Your task to perform on an android device: Open Maps and search for coffee Image 0: 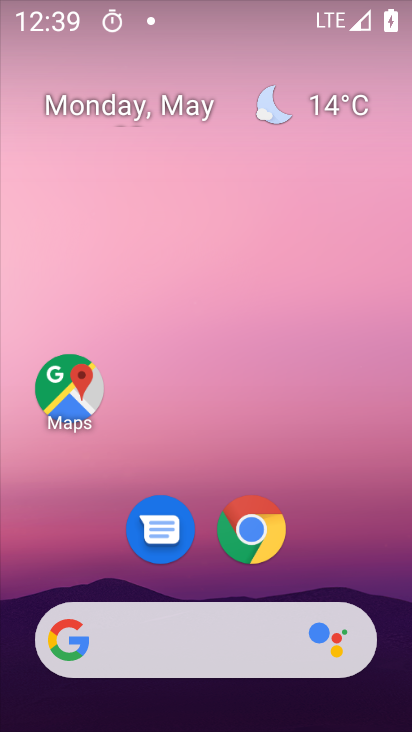
Step 0: drag from (343, 571) to (358, 248)
Your task to perform on an android device: Open Maps and search for coffee Image 1: 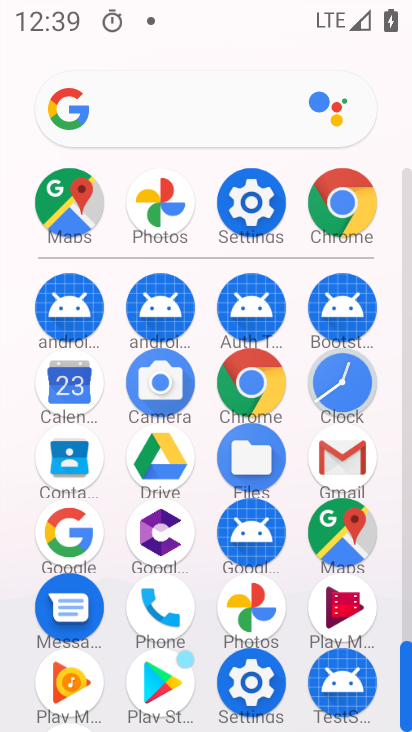
Step 1: click (348, 554)
Your task to perform on an android device: Open Maps and search for coffee Image 2: 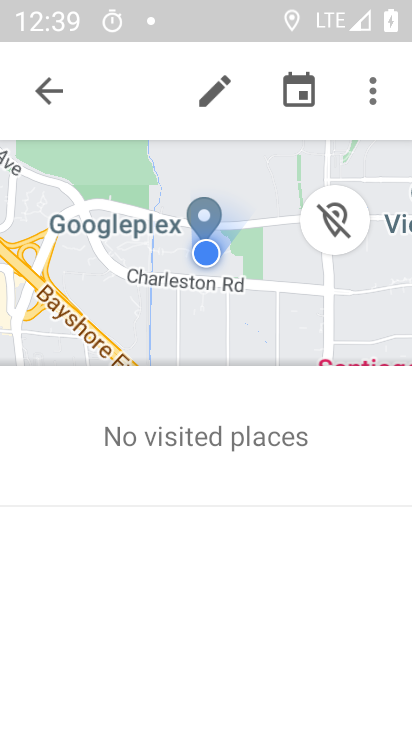
Step 2: click (48, 99)
Your task to perform on an android device: Open Maps and search for coffee Image 3: 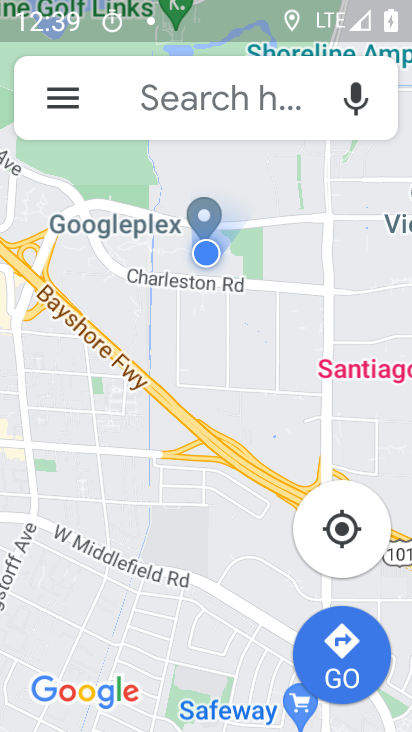
Step 3: click (169, 93)
Your task to perform on an android device: Open Maps and search for coffee Image 4: 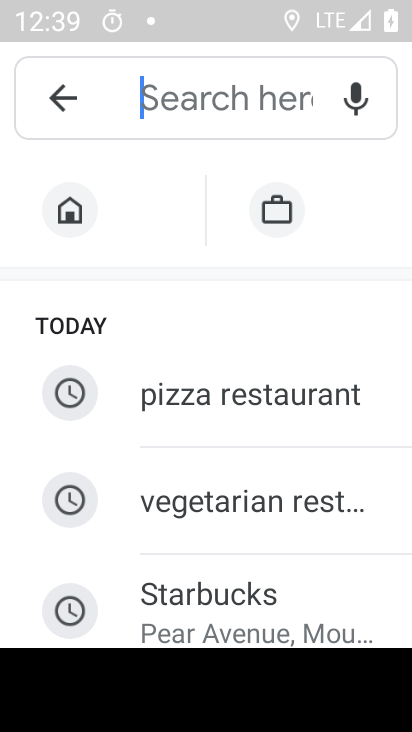
Step 4: drag from (298, 542) to (301, 378)
Your task to perform on an android device: Open Maps and search for coffee Image 5: 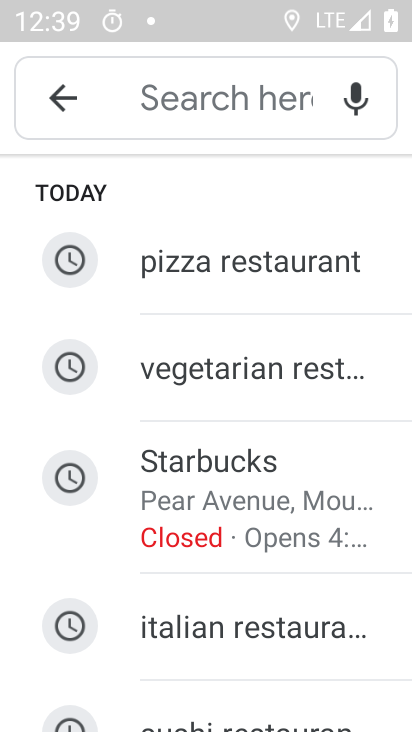
Step 5: drag from (297, 626) to (318, 370)
Your task to perform on an android device: Open Maps and search for coffee Image 6: 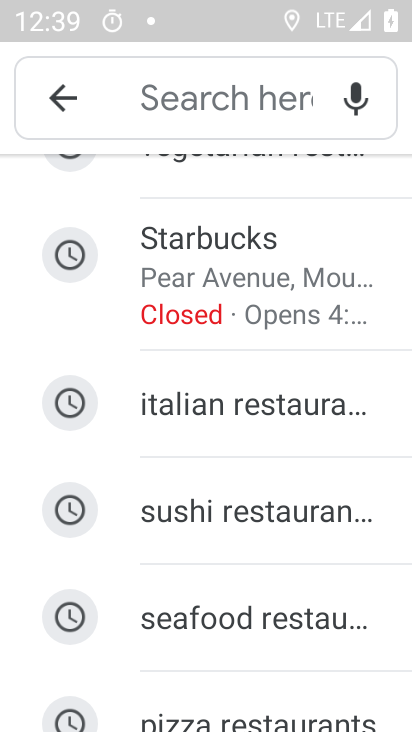
Step 6: drag from (285, 642) to (285, 421)
Your task to perform on an android device: Open Maps and search for coffee Image 7: 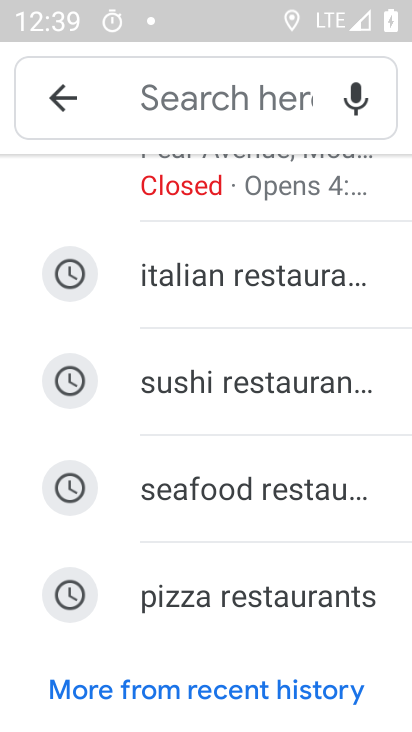
Step 7: drag from (284, 642) to (293, 380)
Your task to perform on an android device: Open Maps and search for coffee Image 8: 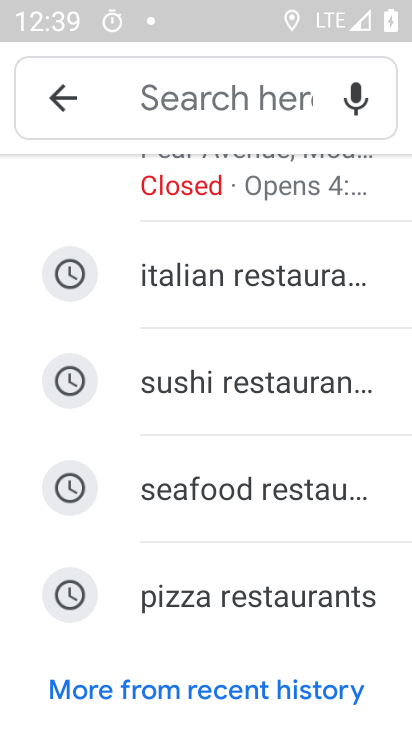
Step 8: click (197, 108)
Your task to perform on an android device: Open Maps and search for coffee Image 9: 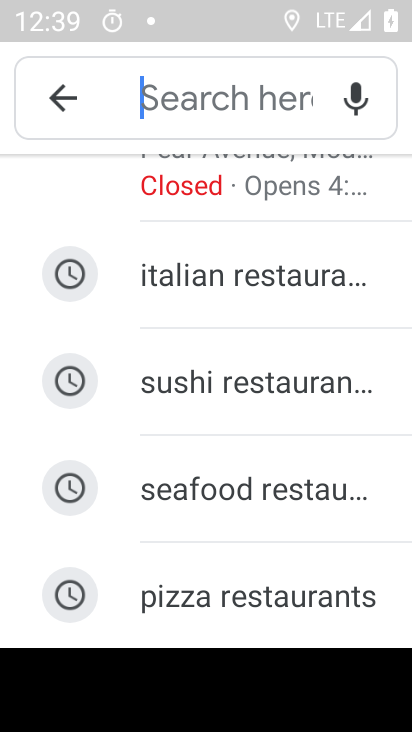
Step 9: type "xoffee"
Your task to perform on an android device: Open Maps and search for coffee Image 10: 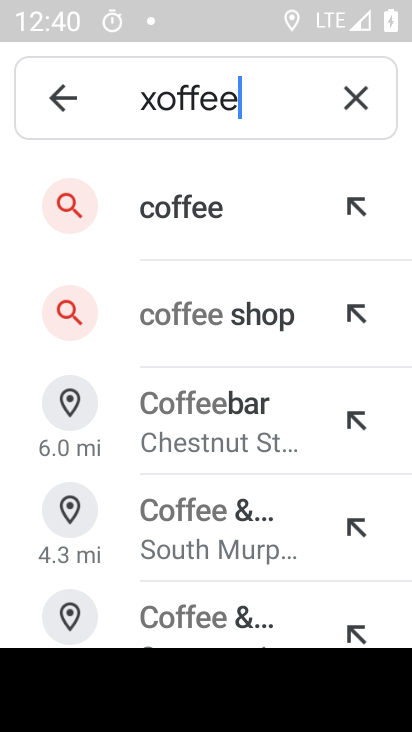
Step 10: click (162, 231)
Your task to perform on an android device: Open Maps and search for coffee Image 11: 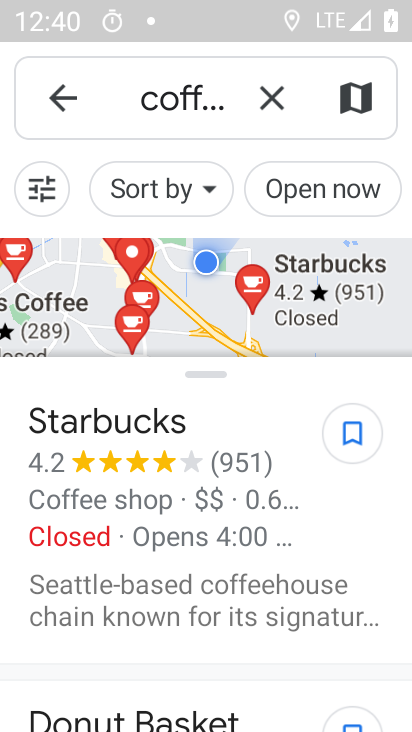
Step 11: task complete